Your task to perform on an android device: What's the weather going to be this weekend? Image 0: 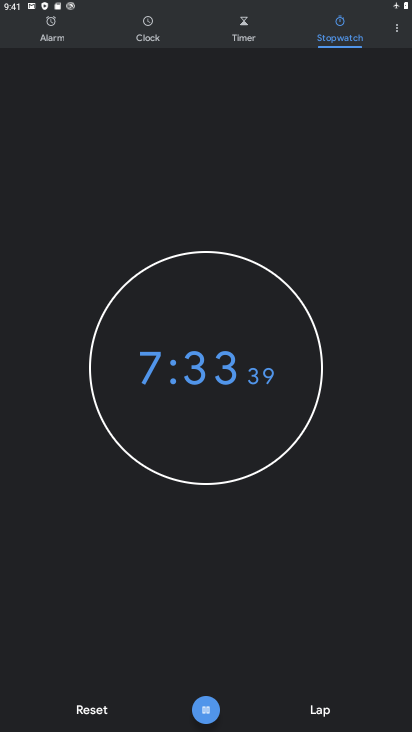
Step 0: click (87, 710)
Your task to perform on an android device: What's the weather going to be this weekend? Image 1: 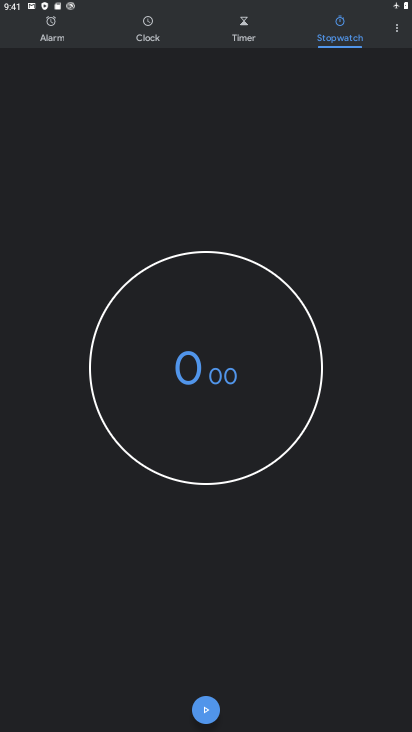
Step 1: press home button
Your task to perform on an android device: What's the weather going to be this weekend? Image 2: 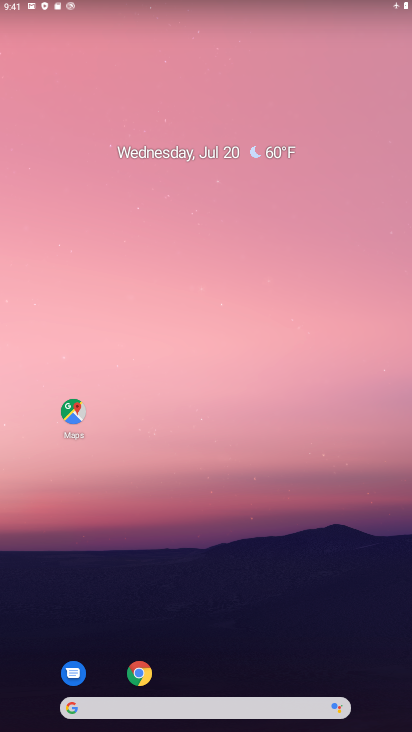
Step 2: click (171, 703)
Your task to perform on an android device: What's the weather going to be this weekend? Image 3: 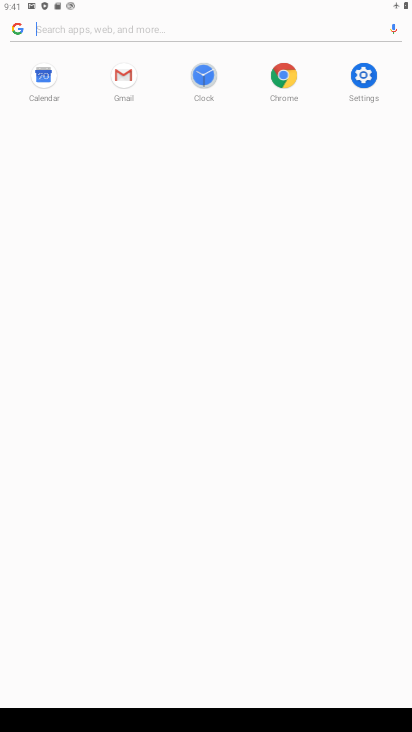
Step 3: type "weather"
Your task to perform on an android device: What's the weather going to be this weekend? Image 4: 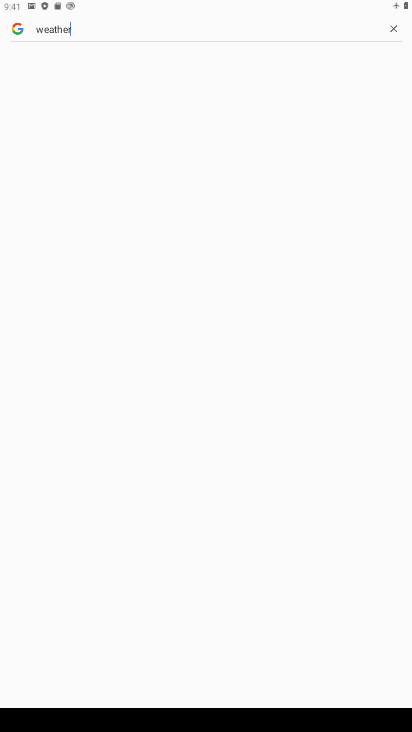
Step 4: click (103, 59)
Your task to perform on an android device: What's the weather going to be this weekend? Image 5: 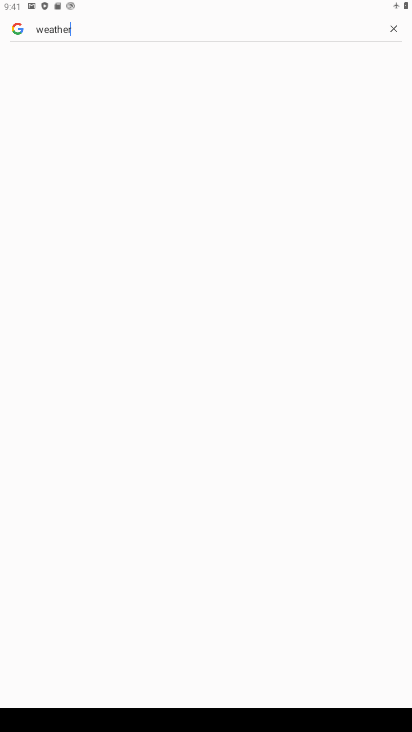
Step 5: click (78, 66)
Your task to perform on an android device: What's the weather going to be this weekend? Image 6: 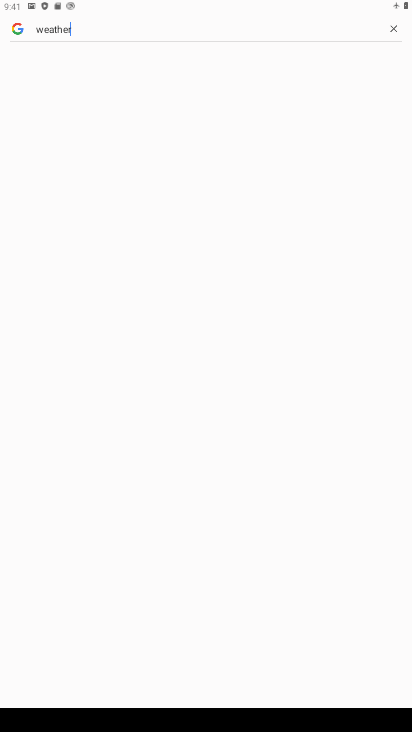
Step 6: click (78, 66)
Your task to perform on an android device: What's the weather going to be this weekend? Image 7: 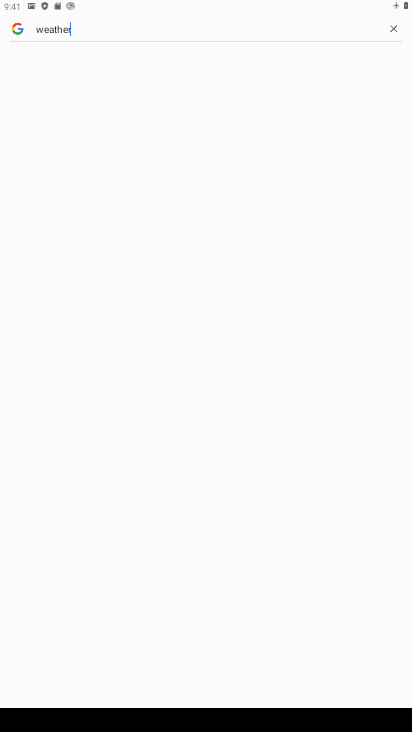
Step 7: task complete